Your task to perform on an android device: toggle notification dots Image 0: 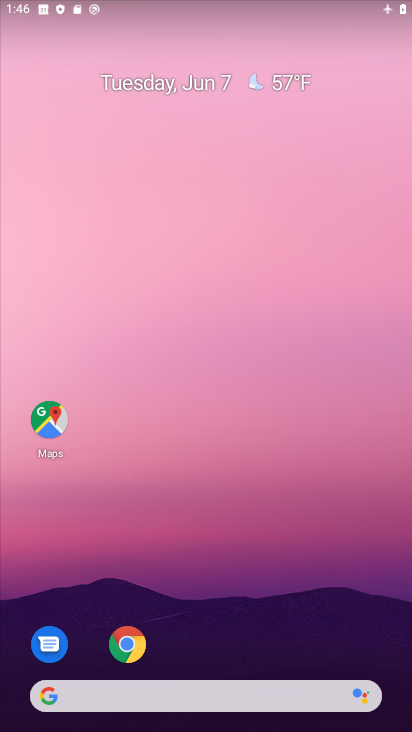
Step 0: drag from (281, 580) to (164, 130)
Your task to perform on an android device: toggle notification dots Image 1: 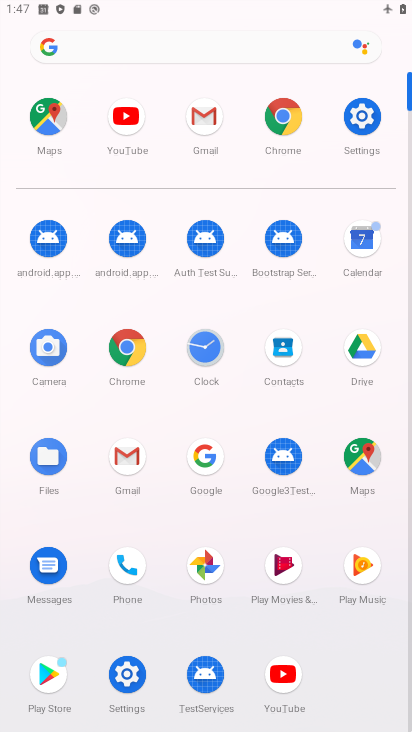
Step 1: click (354, 114)
Your task to perform on an android device: toggle notification dots Image 2: 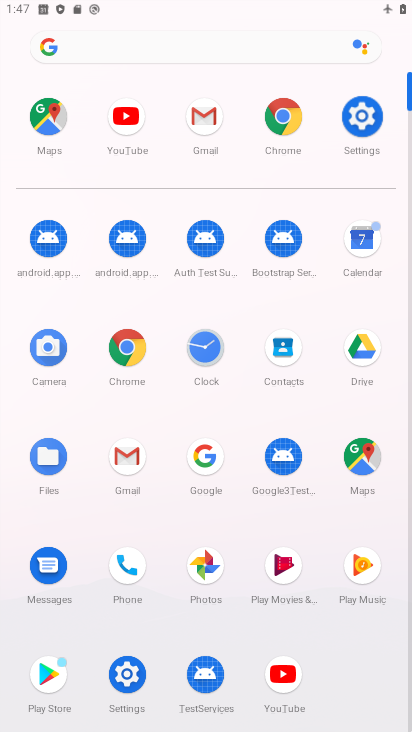
Step 2: click (354, 114)
Your task to perform on an android device: toggle notification dots Image 3: 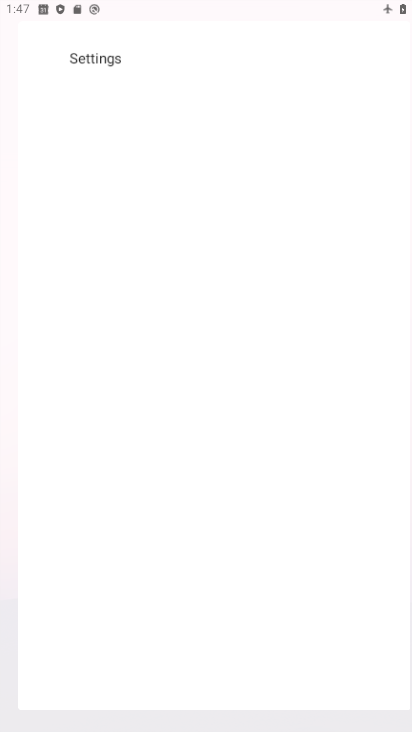
Step 3: click (353, 114)
Your task to perform on an android device: toggle notification dots Image 4: 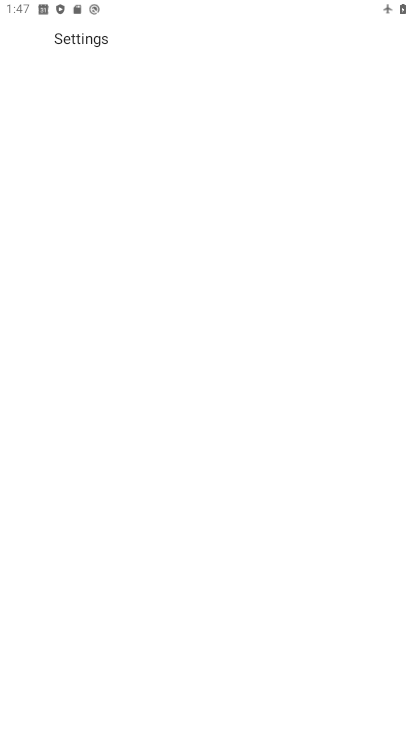
Step 4: click (352, 115)
Your task to perform on an android device: toggle notification dots Image 5: 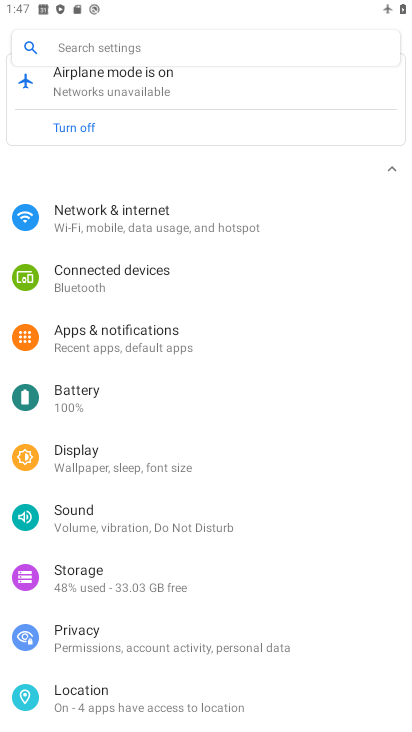
Step 5: drag from (158, 528) to (114, 100)
Your task to perform on an android device: toggle notification dots Image 6: 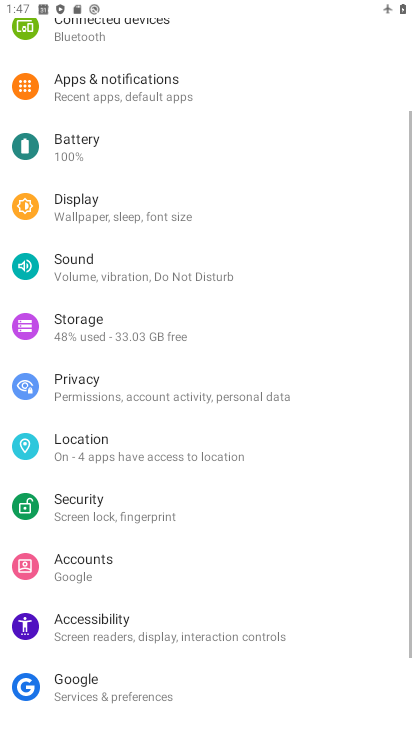
Step 6: drag from (131, 502) to (112, 193)
Your task to perform on an android device: toggle notification dots Image 7: 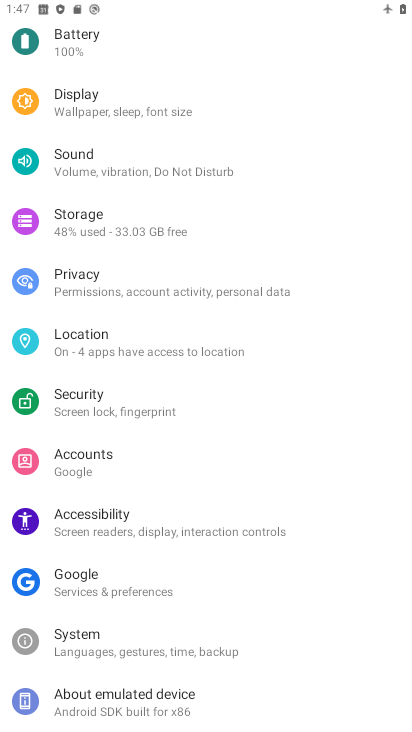
Step 7: drag from (108, 246) to (177, 545)
Your task to perform on an android device: toggle notification dots Image 8: 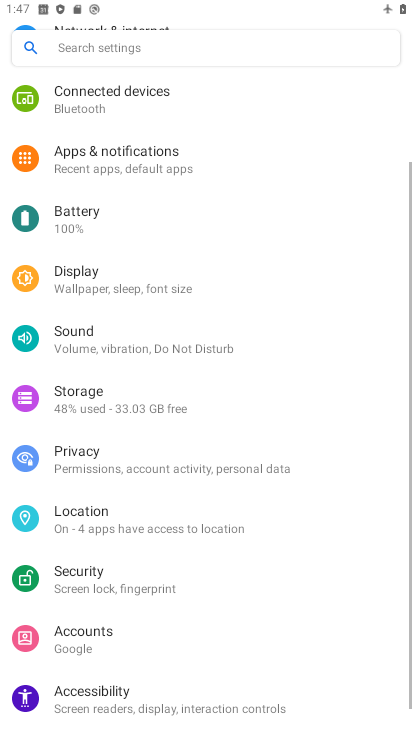
Step 8: drag from (61, 233) to (138, 495)
Your task to perform on an android device: toggle notification dots Image 9: 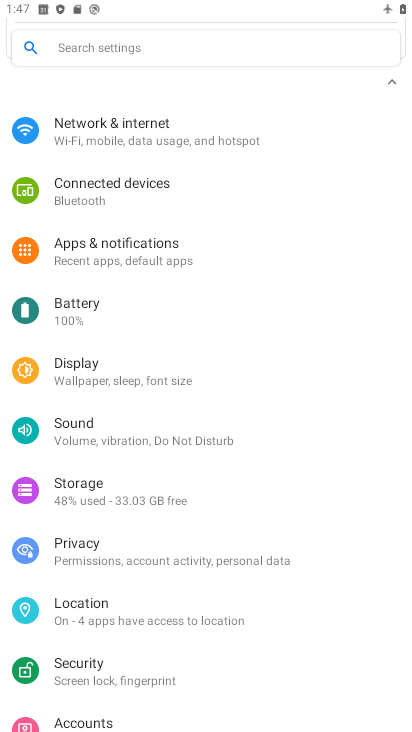
Step 9: click (109, 255)
Your task to perform on an android device: toggle notification dots Image 10: 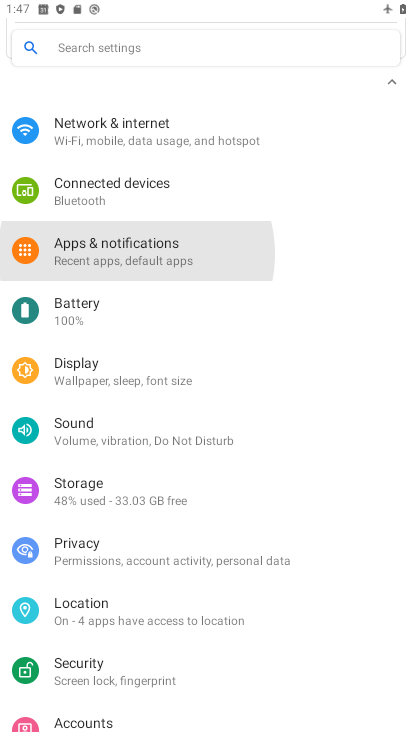
Step 10: click (109, 255)
Your task to perform on an android device: toggle notification dots Image 11: 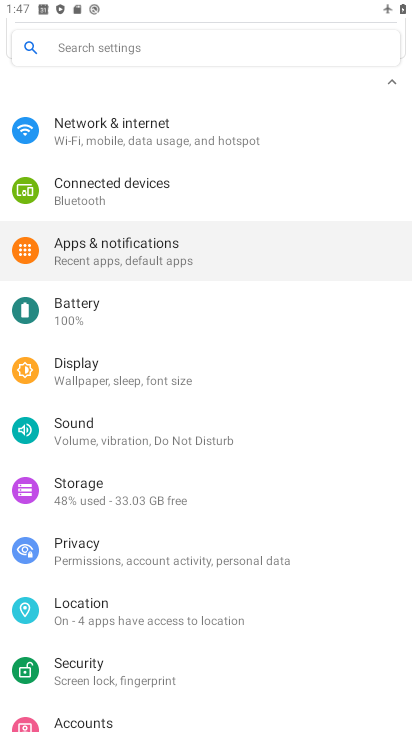
Step 11: click (102, 259)
Your task to perform on an android device: toggle notification dots Image 12: 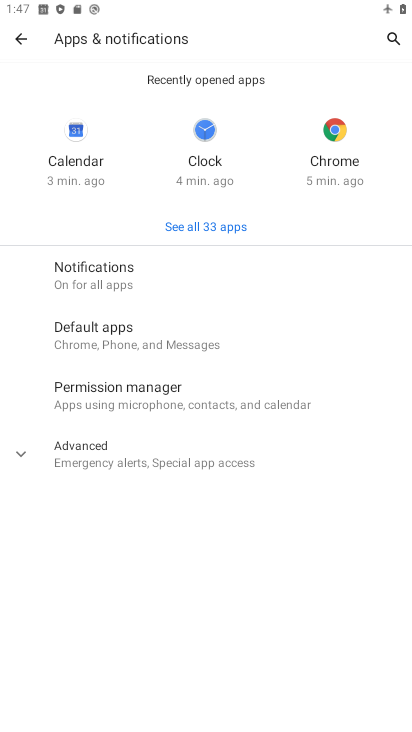
Step 12: click (95, 280)
Your task to perform on an android device: toggle notification dots Image 13: 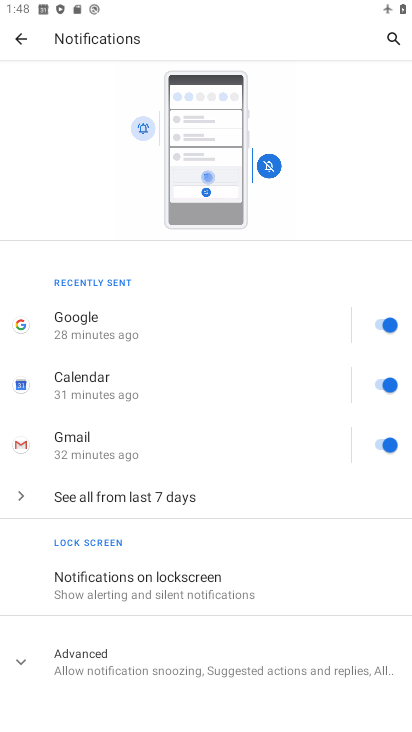
Step 13: drag from (177, 640) to (131, 226)
Your task to perform on an android device: toggle notification dots Image 14: 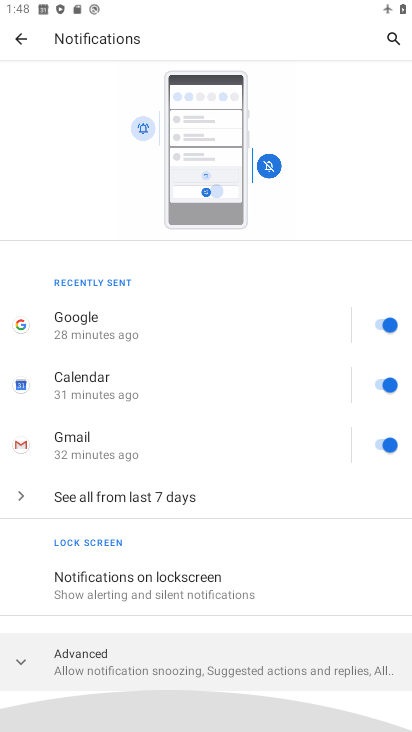
Step 14: drag from (244, 516) to (221, 224)
Your task to perform on an android device: toggle notification dots Image 15: 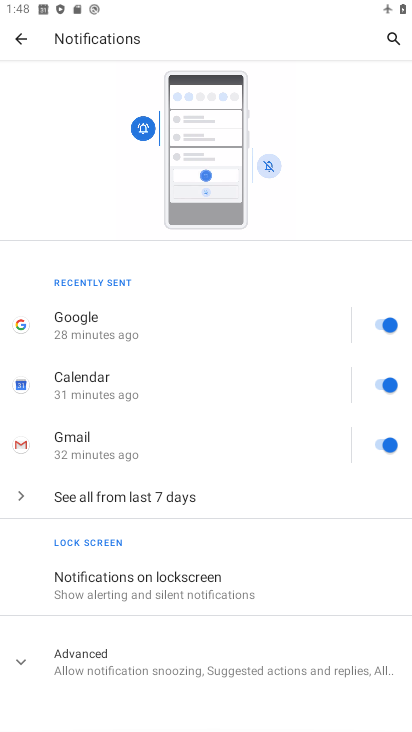
Step 15: click (215, 674)
Your task to perform on an android device: toggle notification dots Image 16: 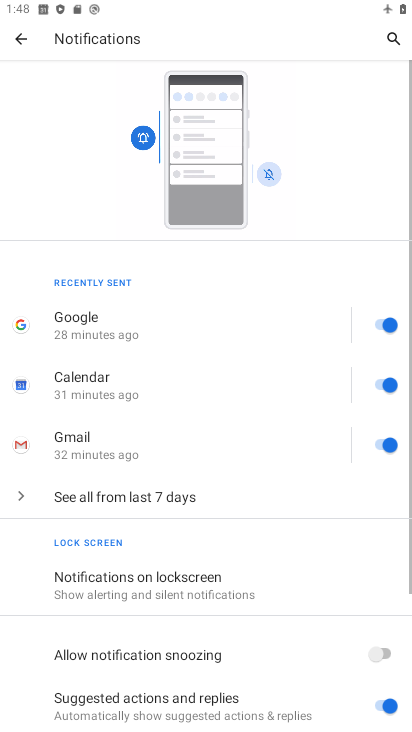
Step 16: drag from (208, 435) to (152, 229)
Your task to perform on an android device: toggle notification dots Image 17: 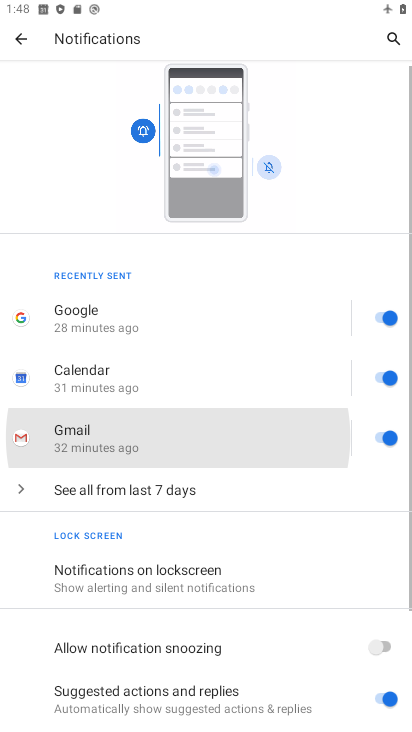
Step 17: drag from (254, 447) to (223, 230)
Your task to perform on an android device: toggle notification dots Image 18: 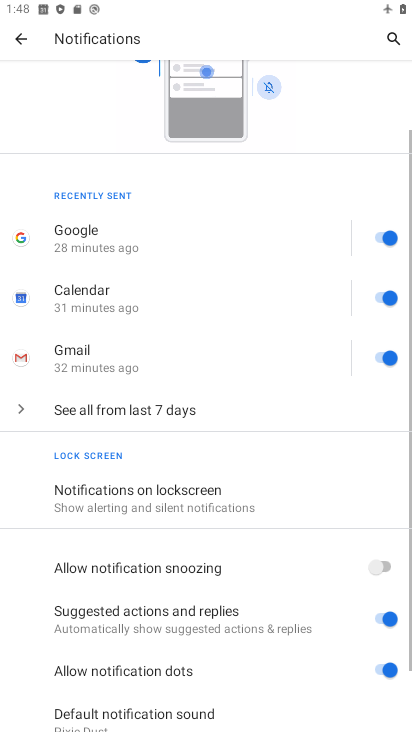
Step 18: drag from (280, 415) to (269, 267)
Your task to perform on an android device: toggle notification dots Image 19: 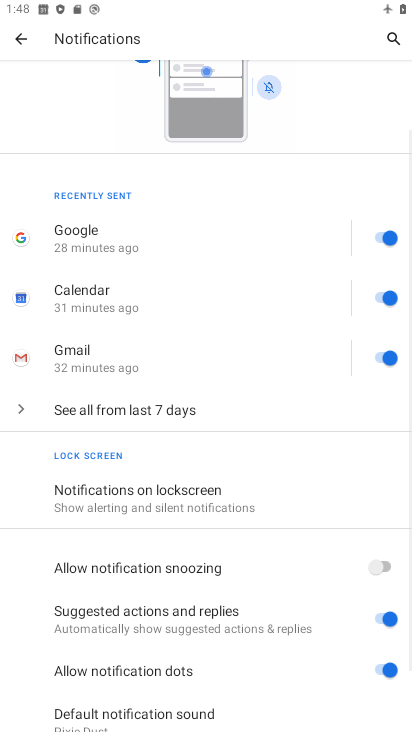
Step 19: drag from (338, 607) to (294, 292)
Your task to perform on an android device: toggle notification dots Image 20: 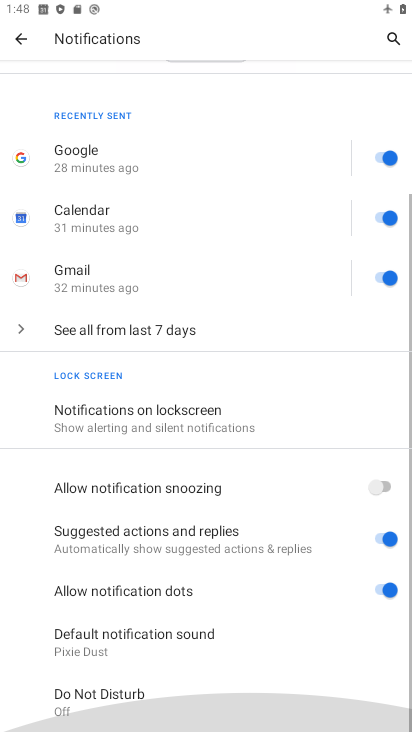
Step 20: drag from (336, 568) to (291, 288)
Your task to perform on an android device: toggle notification dots Image 21: 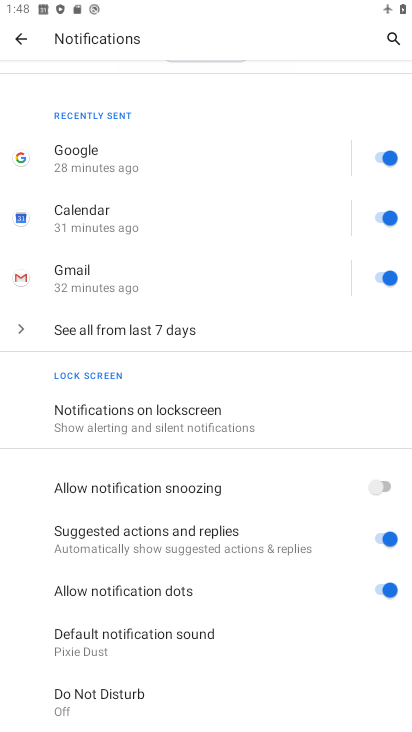
Step 21: click (386, 591)
Your task to perform on an android device: toggle notification dots Image 22: 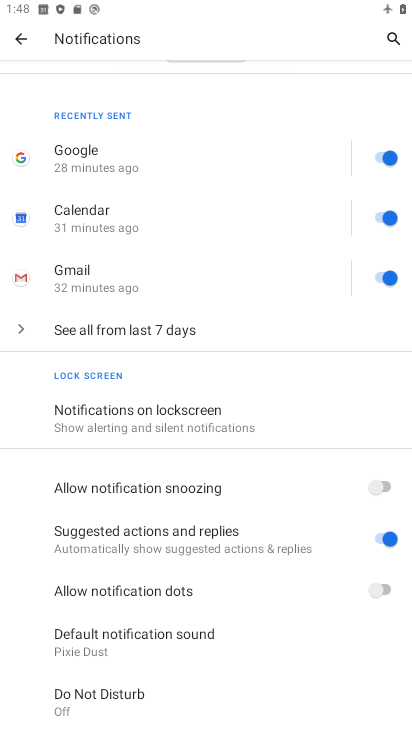
Step 22: task complete